Your task to perform on an android device: Add usb-a to the cart on costco.com Image 0: 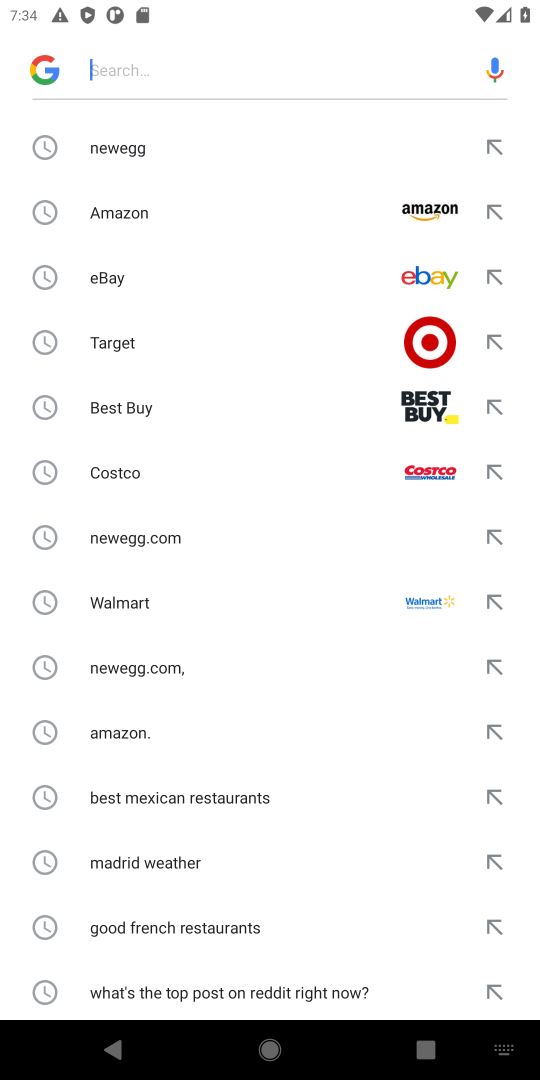
Step 0: click (185, 474)
Your task to perform on an android device: Add usb-a to the cart on costco.com Image 1: 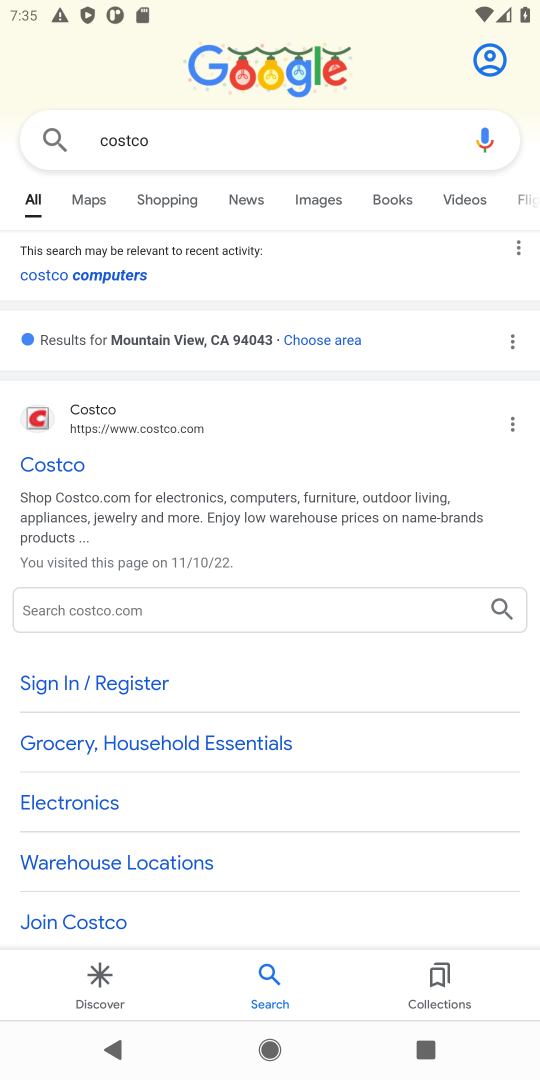
Step 1: click (40, 473)
Your task to perform on an android device: Add usb-a to the cart on costco.com Image 2: 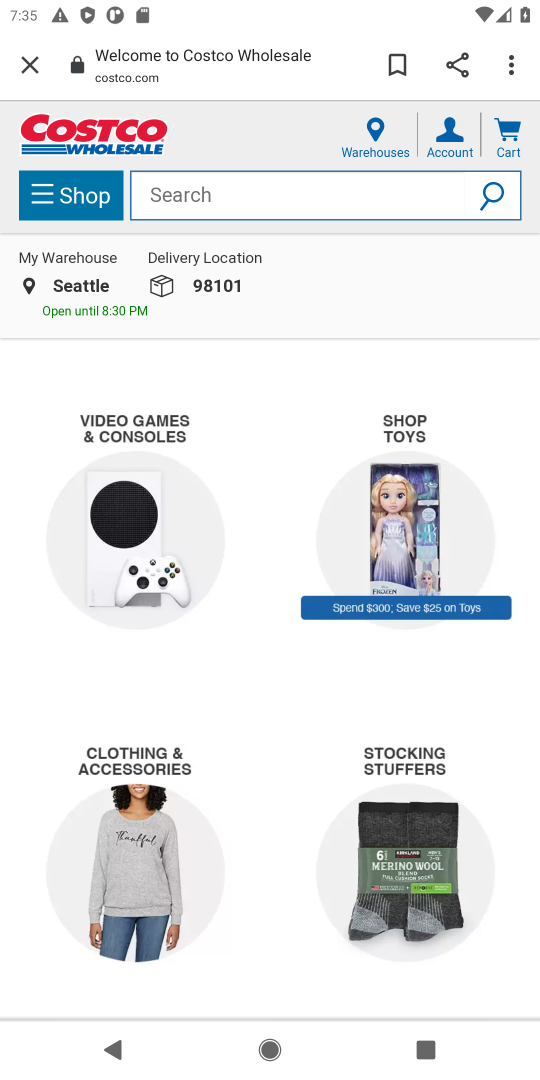
Step 2: click (285, 197)
Your task to perform on an android device: Add usb-a to the cart on costco.com Image 3: 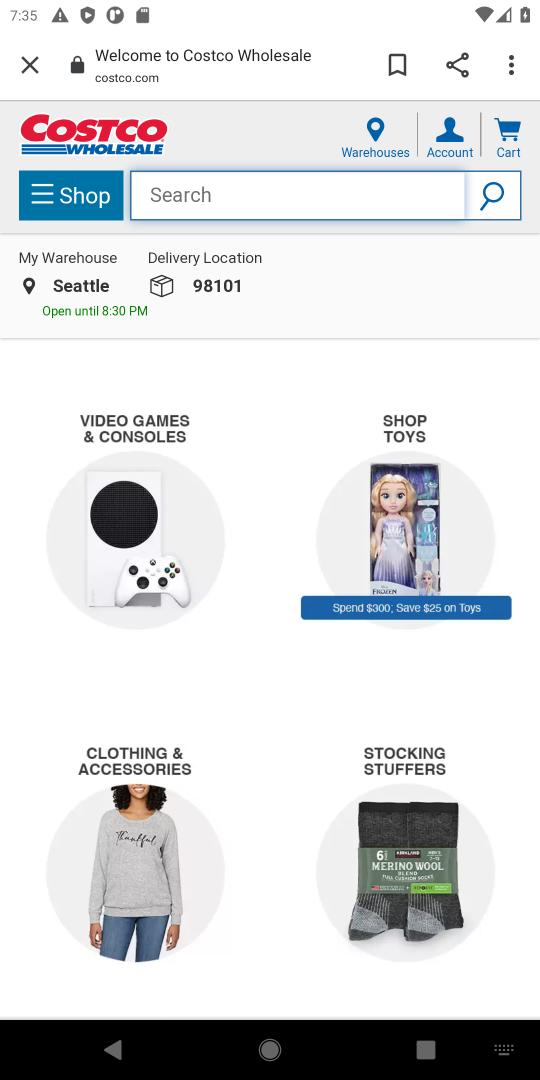
Step 3: type "USB-A"
Your task to perform on an android device: Add usb-a to the cart on costco.com Image 4: 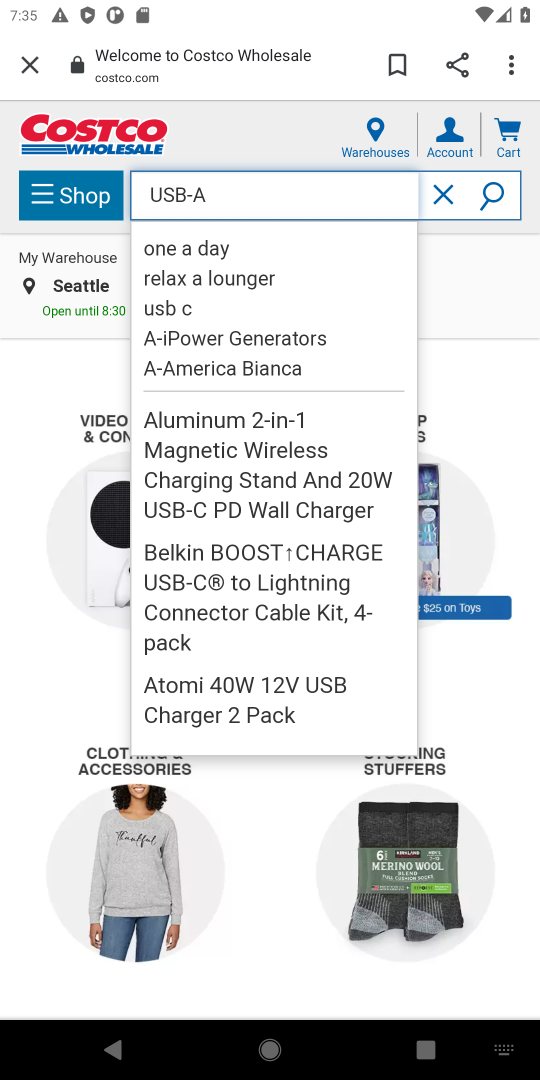
Step 4: click (447, 194)
Your task to perform on an android device: Add usb-a to the cart on costco.com Image 5: 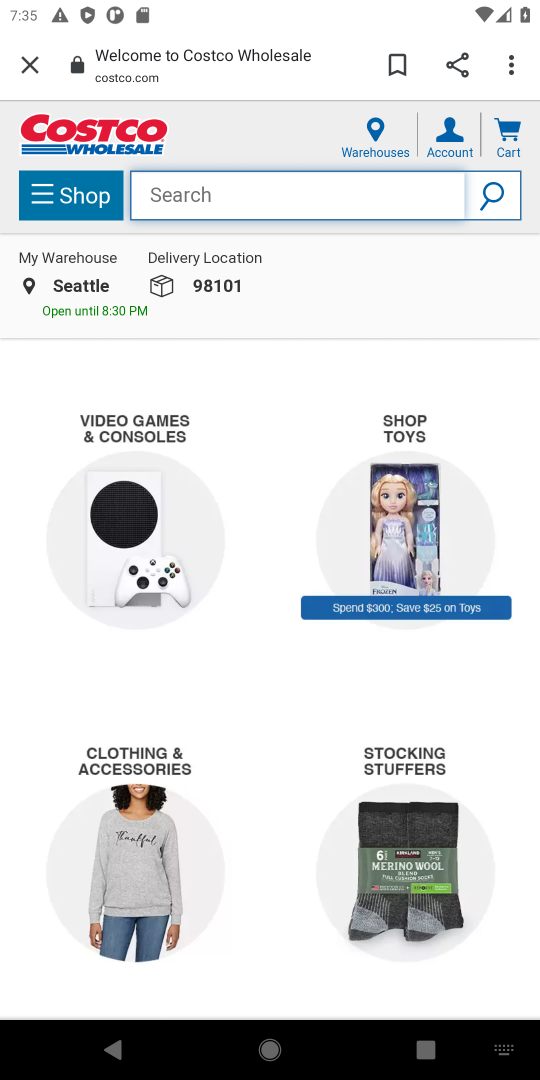
Step 5: type "usb-a"
Your task to perform on an android device: Add usb-a to the cart on costco.com Image 6: 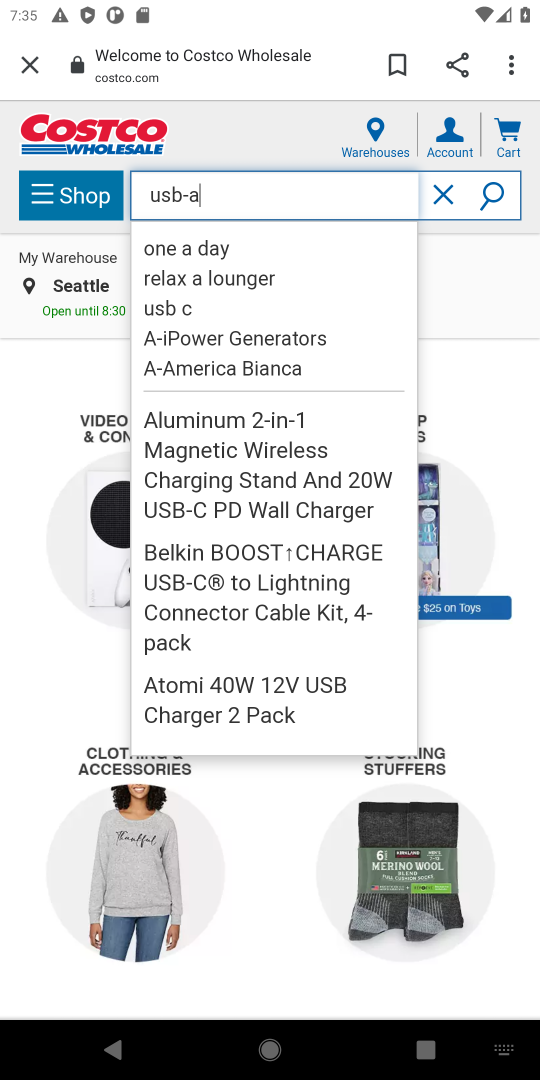
Step 6: click (201, 251)
Your task to perform on an android device: Add usb-a to the cart on costco.com Image 7: 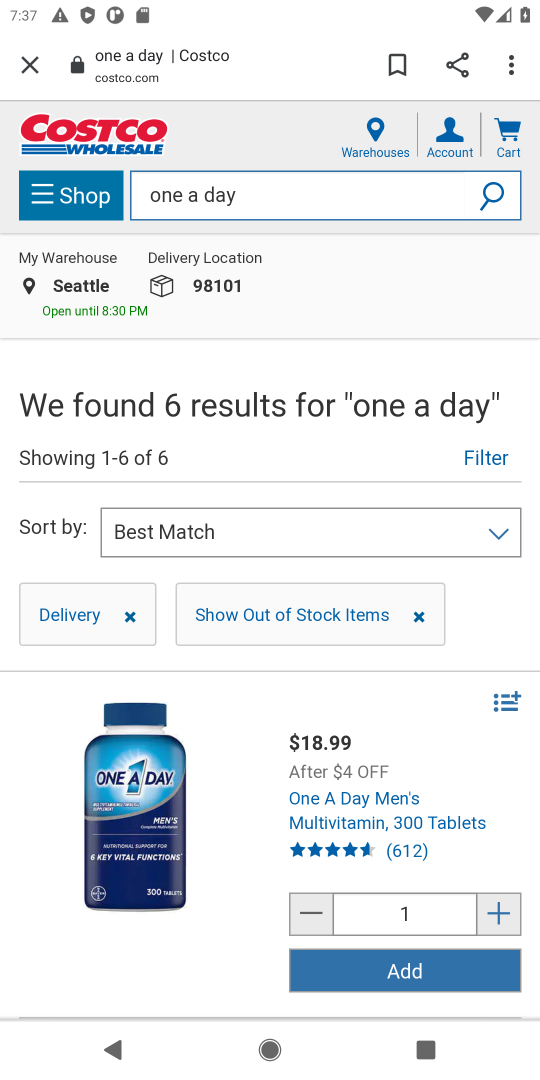
Step 7: click (406, 976)
Your task to perform on an android device: Add usb-a to the cart on costco.com Image 8: 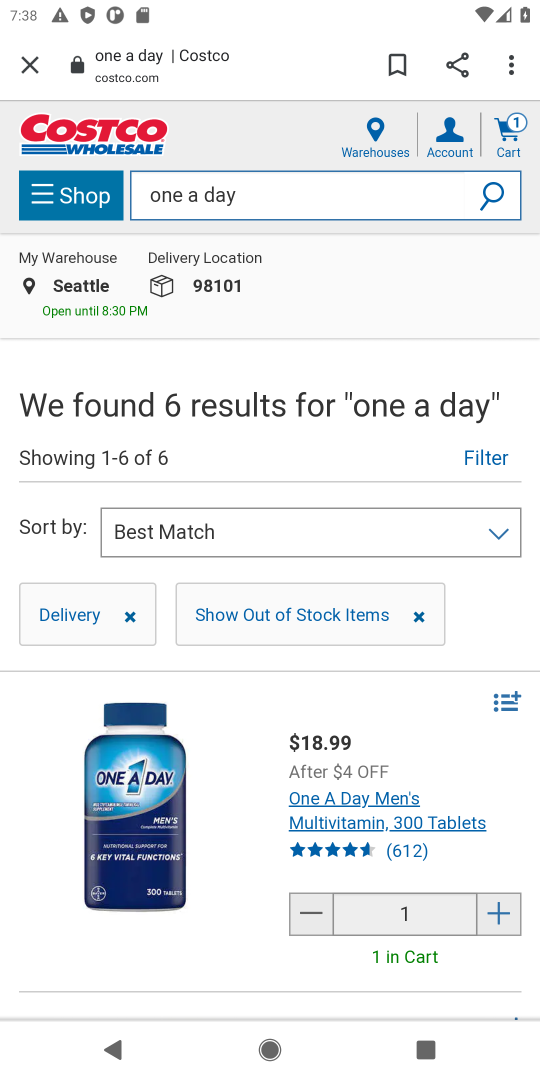
Step 8: task complete